Your task to perform on an android device: Is it going to rain this weekend? Image 0: 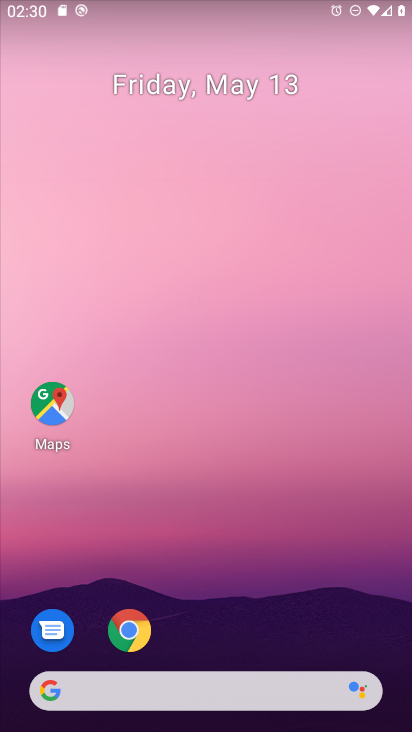
Step 0: drag from (245, 689) to (199, 177)
Your task to perform on an android device: Is it going to rain this weekend? Image 1: 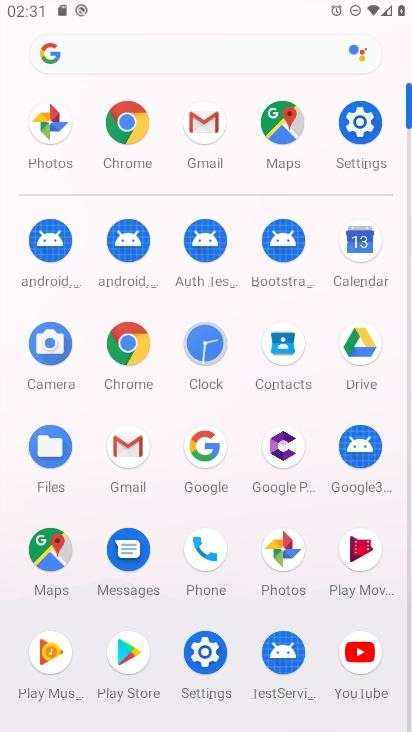
Step 1: click (133, 54)
Your task to perform on an android device: Is it going to rain this weekend? Image 2: 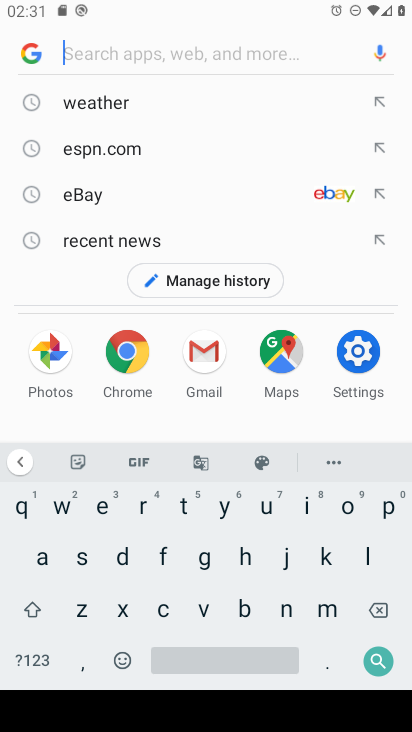
Step 2: click (138, 113)
Your task to perform on an android device: Is it going to rain this weekend? Image 3: 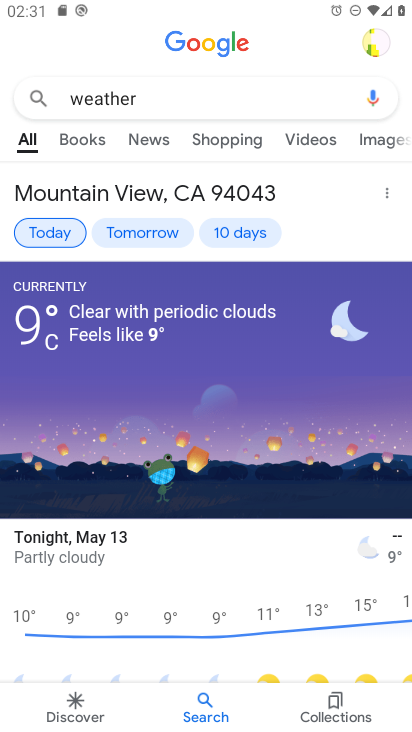
Step 3: click (251, 230)
Your task to perform on an android device: Is it going to rain this weekend? Image 4: 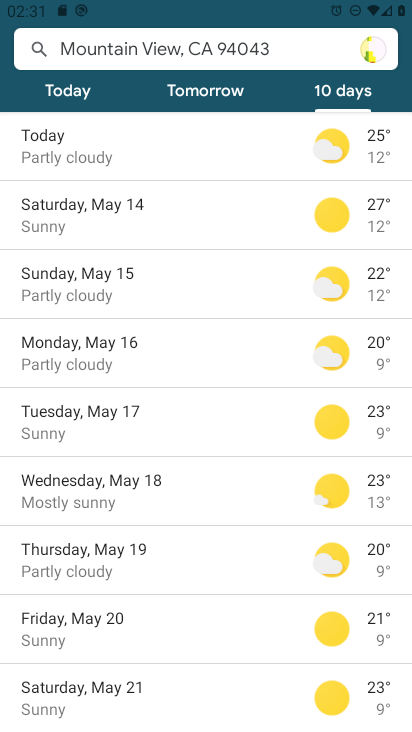
Step 4: task complete